Your task to perform on an android device: When is my next meeting? Image 0: 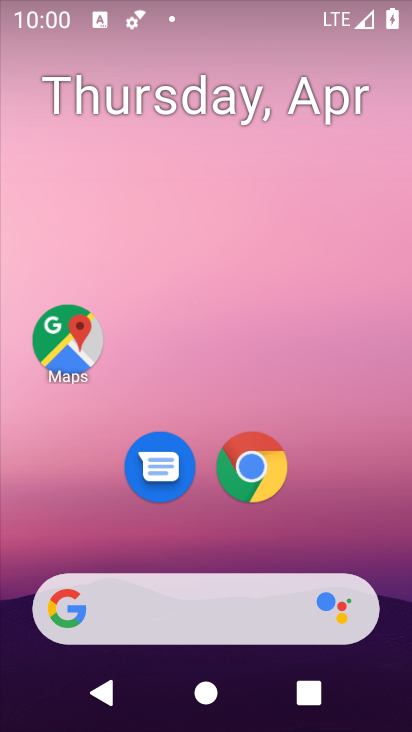
Step 0: drag from (332, 496) to (319, 91)
Your task to perform on an android device: When is my next meeting? Image 1: 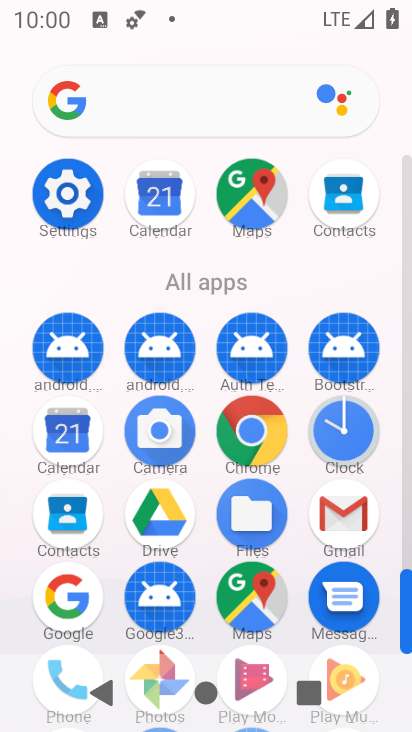
Step 1: click (165, 192)
Your task to perform on an android device: When is my next meeting? Image 2: 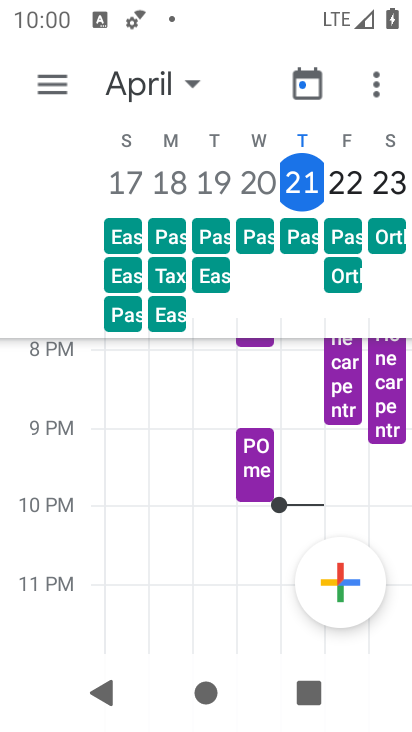
Step 2: drag from (295, 467) to (336, 725)
Your task to perform on an android device: When is my next meeting? Image 3: 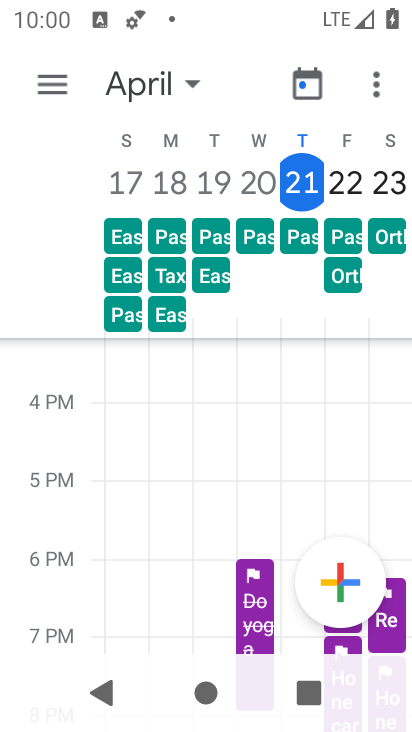
Step 3: drag from (298, 371) to (337, 676)
Your task to perform on an android device: When is my next meeting? Image 4: 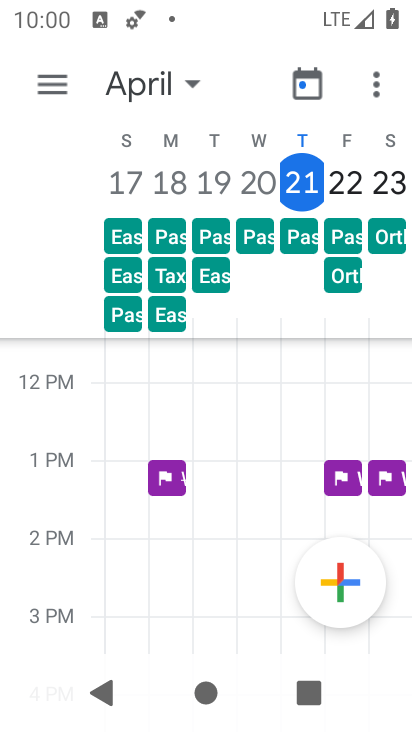
Step 4: drag from (329, 355) to (331, 726)
Your task to perform on an android device: When is my next meeting? Image 5: 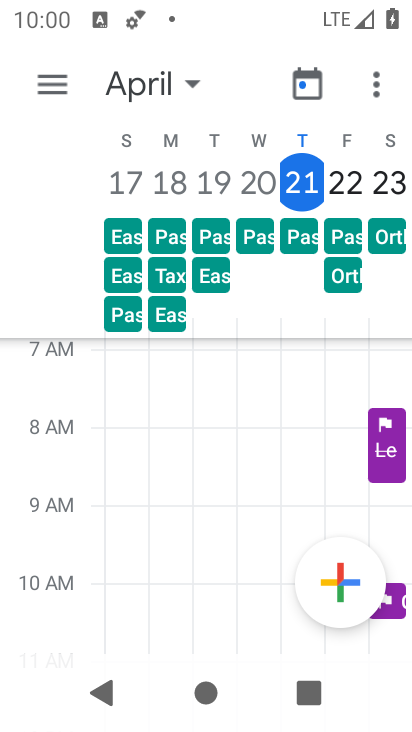
Step 5: click (304, 179)
Your task to perform on an android device: When is my next meeting? Image 6: 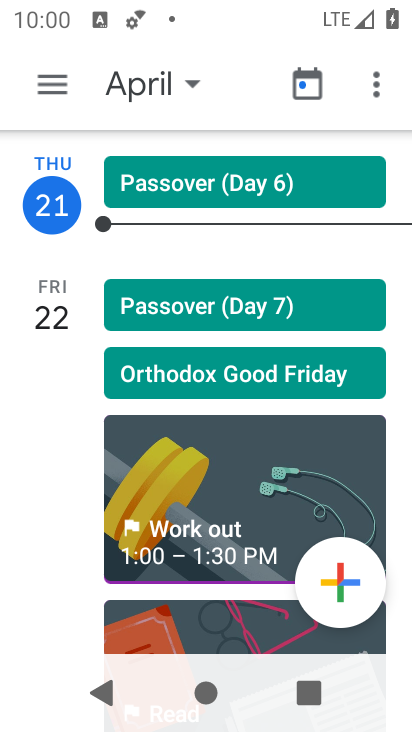
Step 6: task complete